Your task to perform on an android device: set the stopwatch Image 0: 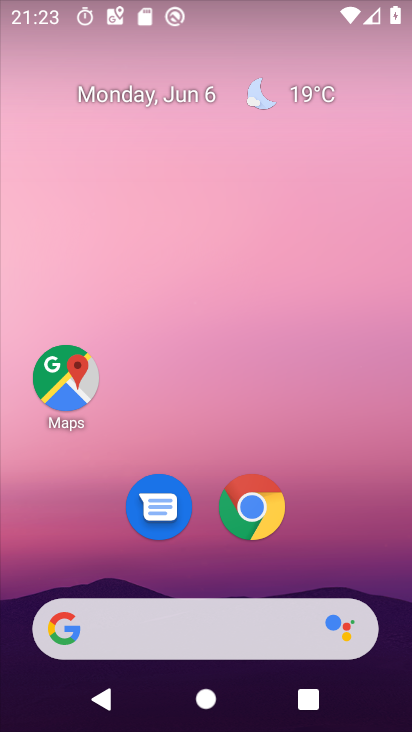
Step 0: press home button
Your task to perform on an android device: set the stopwatch Image 1: 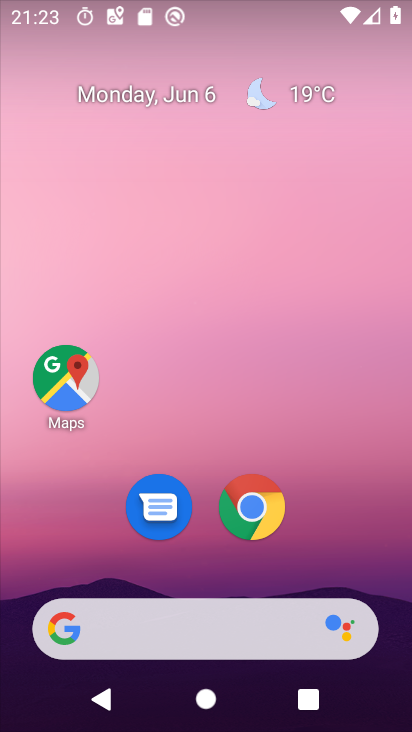
Step 1: drag from (397, 604) to (271, 60)
Your task to perform on an android device: set the stopwatch Image 2: 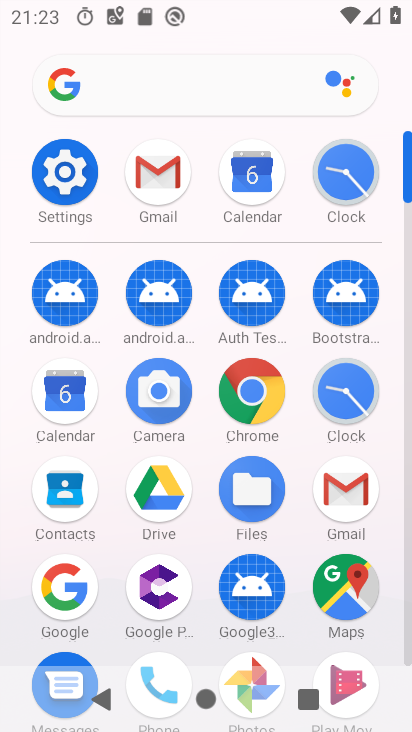
Step 2: click (355, 397)
Your task to perform on an android device: set the stopwatch Image 3: 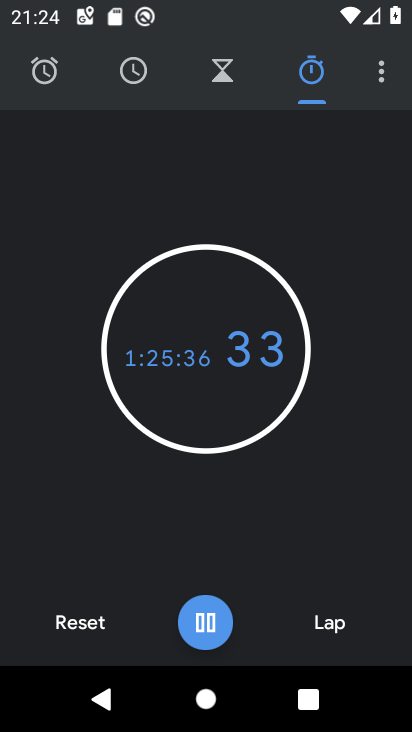
Step 3: click (47, 632)
Your task to perform on an android device: set the stopwatch Image 4: 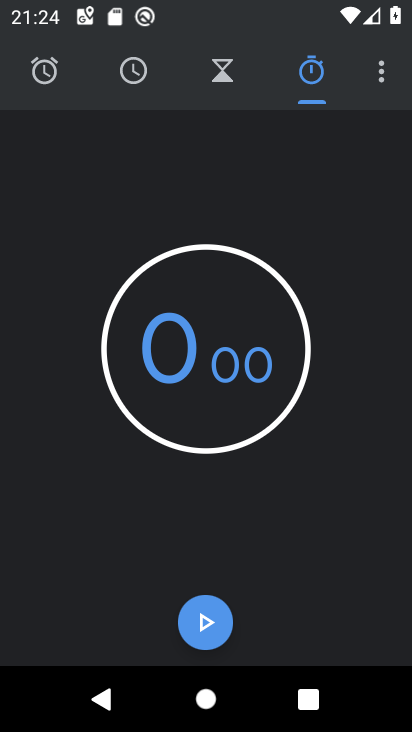
Step 4: click (199, 645)
Your task to perform on an android device: set the stopwatch Image 5: 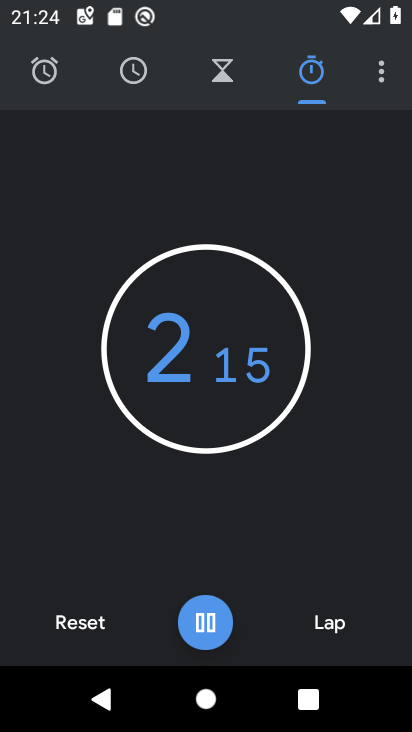
Step 5: task complete